Your task to perform on an android device: turn on javascript in the chrome app Image 0: 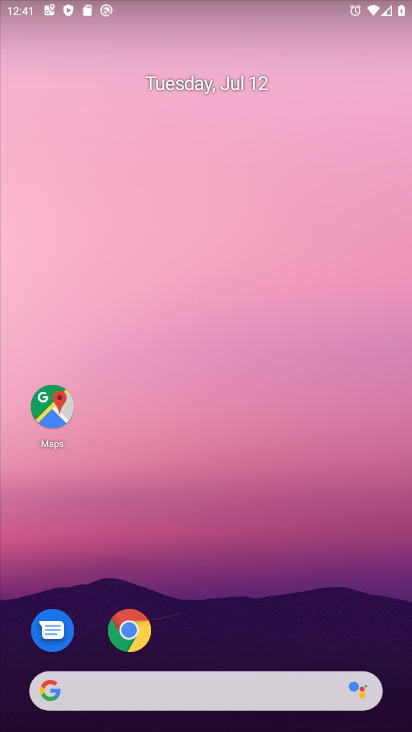
Step 0: click (131, 630)
Your task to perform on an android device: turn on javascript in the chrome app Image 1: 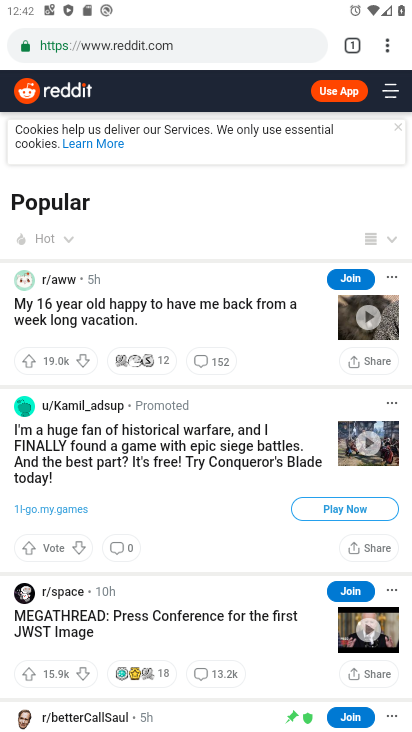
Step 1: click (389, 47)
Your task to perform on an android device: turn on javascript in the chrome app Image 2: 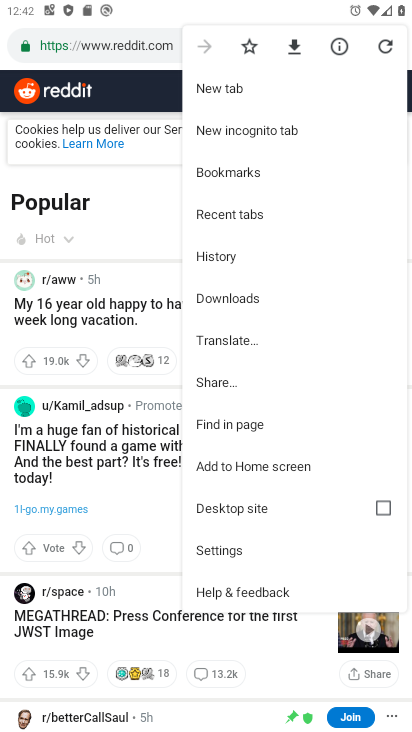
Step 2: click (228, 548)
Your task to perform on an android device: turn on javascript in the chrome app Image 3: 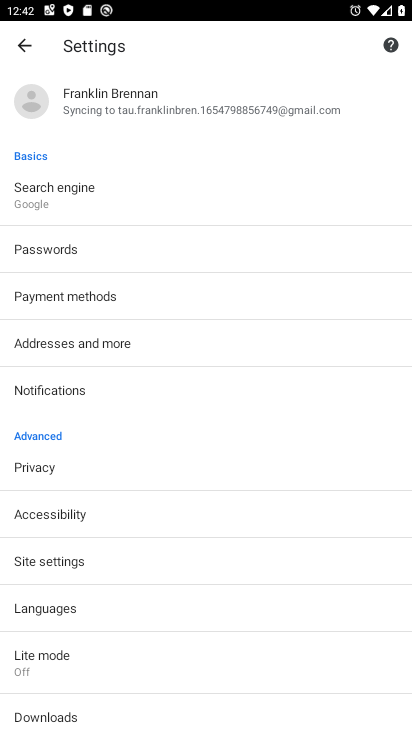
Step 3: click (68, 559)
Your task to perform on an android device: turn on javascript in the chrome app Image 4: 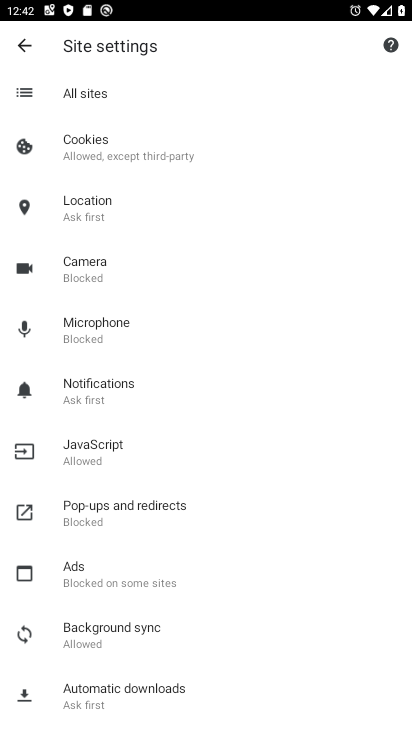
Step 4: click (89, 455)
Your task to perform on an android device: turn on javascript in the chrome app Image 5: 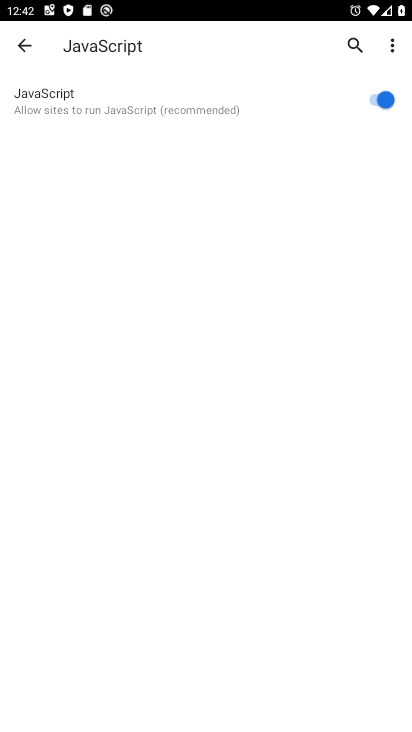
Step 5: task complete